Your task to perform on an android device: move a message to another label in the gmail app Image 0: 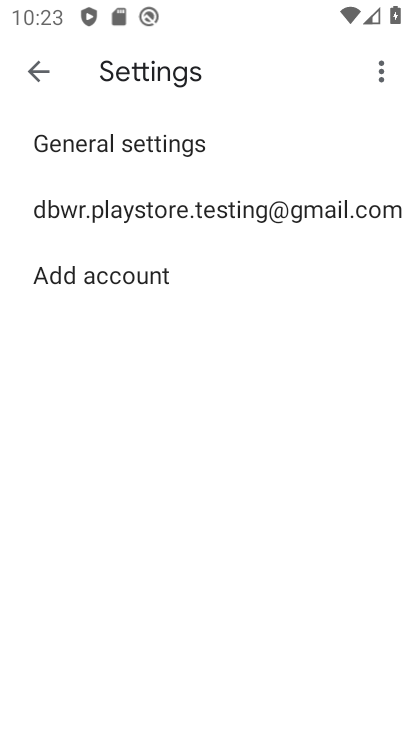
Step 0: task complete